Your task to perform on an android device: all mails in gmail Image 0: 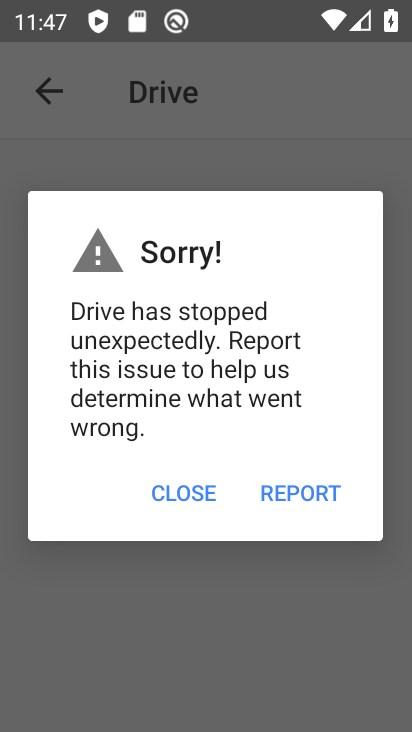
Step 0: press home button
Your task to perform on an android device: all mails in gmail Image 1: 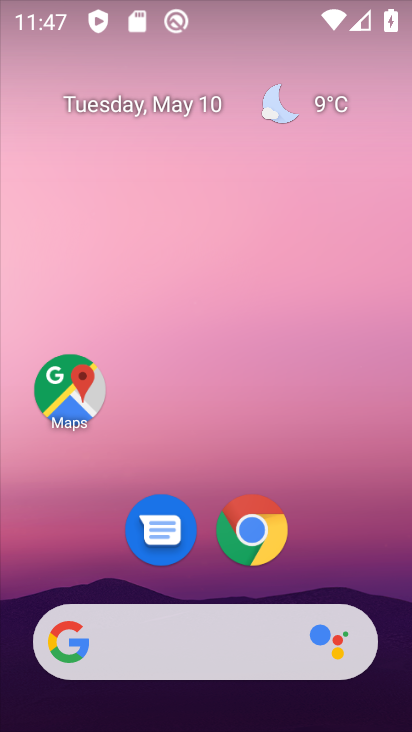
Step 1: drag from (360, 555) to (194, 101)
Your task to perform on an android device: all mails in gmail Image 2: 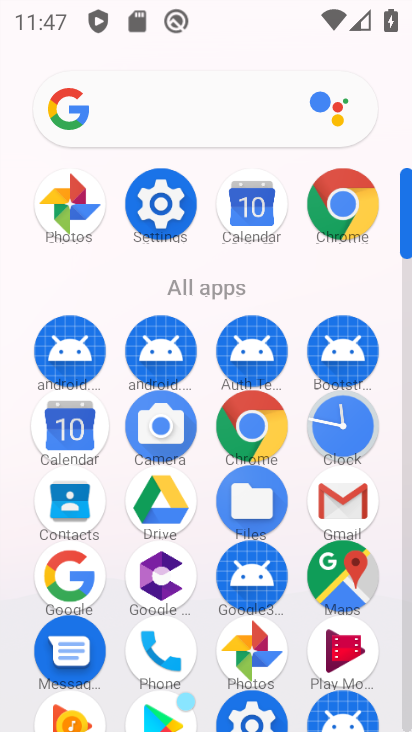
Step 2: click (337, 500)
Your task to perform on an android device: all mails in gmail Image 3: 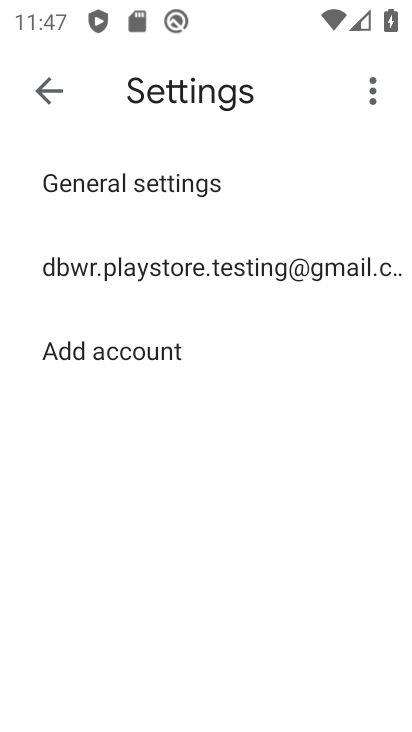
Step 3: click (43, 95)
Your task to perform on an android device: all mails in gmail Image 4: 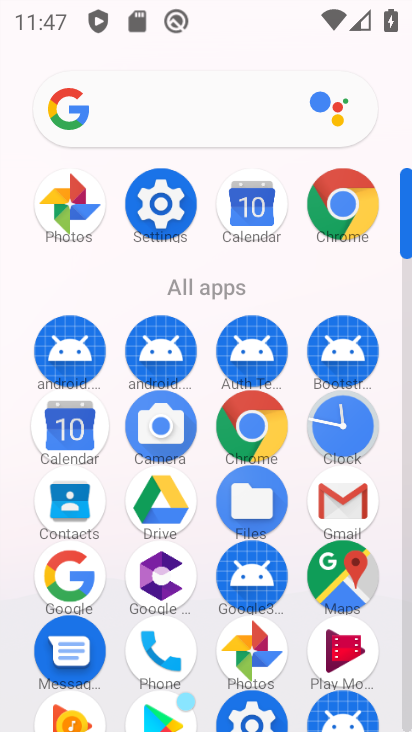
Step 4: click (338, 501)
Your task to perform on an android device: all mails in gmail Image 5: 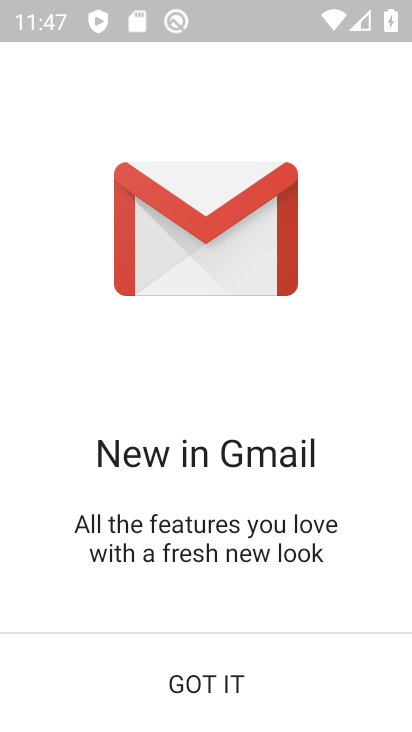
Step 5: click (276, 646)
Your task to perform on an android device: all mails in gmail Image 6: 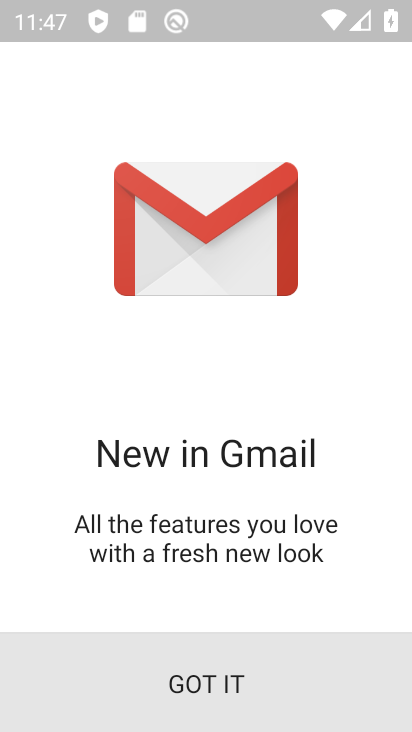
Step 6: click (278, 646)
Your task to perform on an android device: all mails in gmail Image 7: 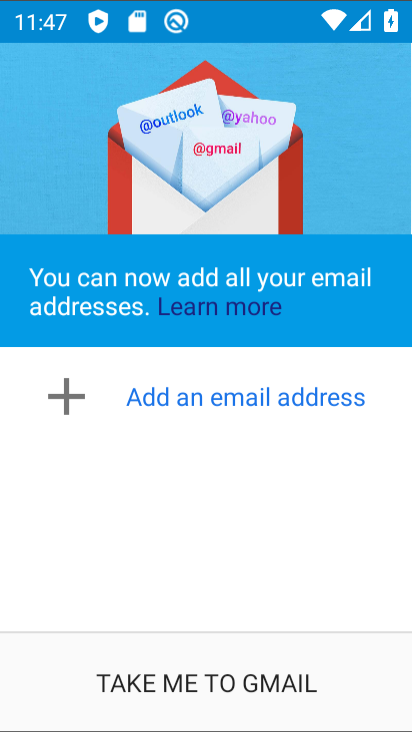
Step 7: click (278, 646)
Your task to perform on an android device: all mails in gmail Image 8: 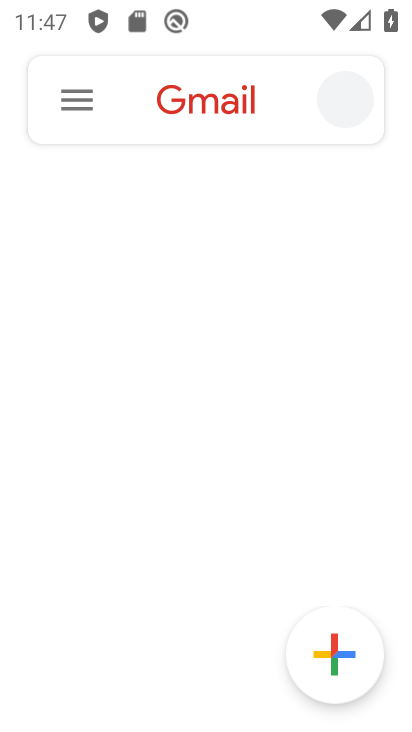
Step 8: click (278, 646)
Your task to perform on an android device: all mails in gmail Image 9: 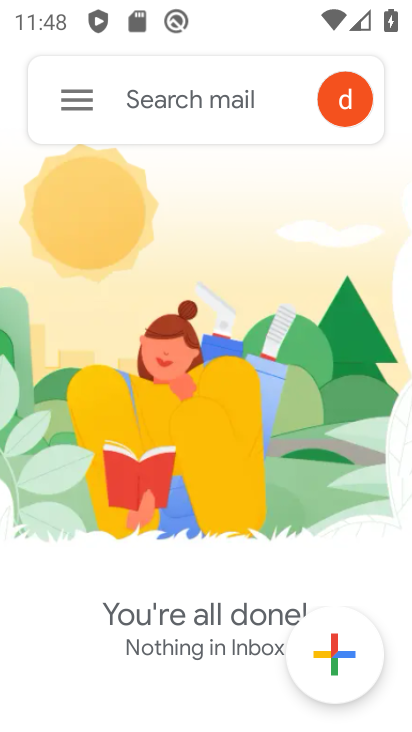
Step 9: click (88, 92)
Your task to perform on an android device: all mails in gmail Image 10: 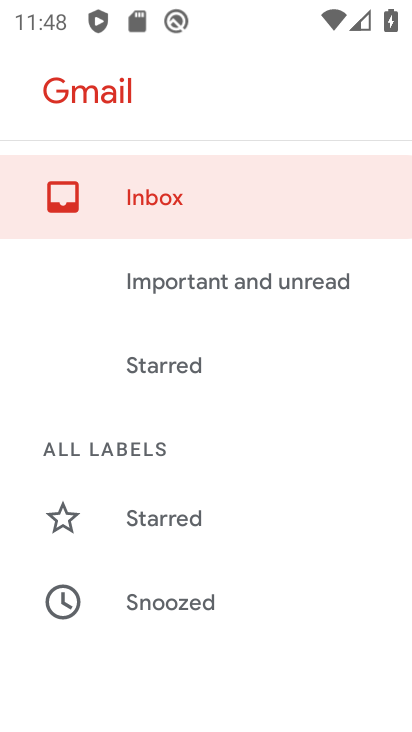
Step 10: drag from (174, 513) to (109, 83)
Your task to perform on an android device: all mails in gmail Image 11: 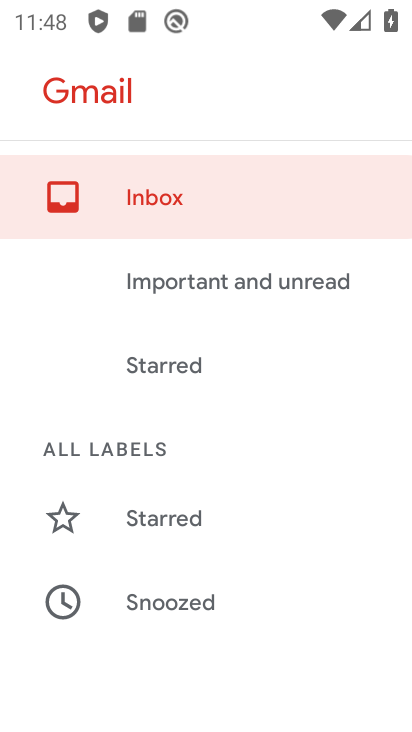
Step 11: drag from (324, 502) to (211, 121)
Your task to perform on an android device: all mails in gmail Image 12: 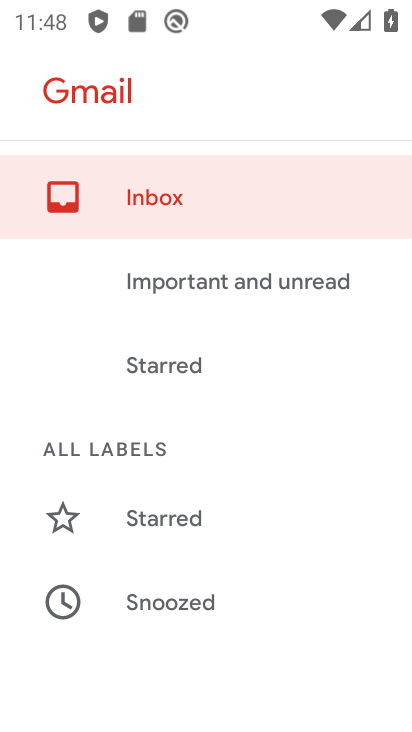
Step 12: drag from (209, 615) to (151, 138)
Your task to perform on an android device: all mails in gmail Image 13: 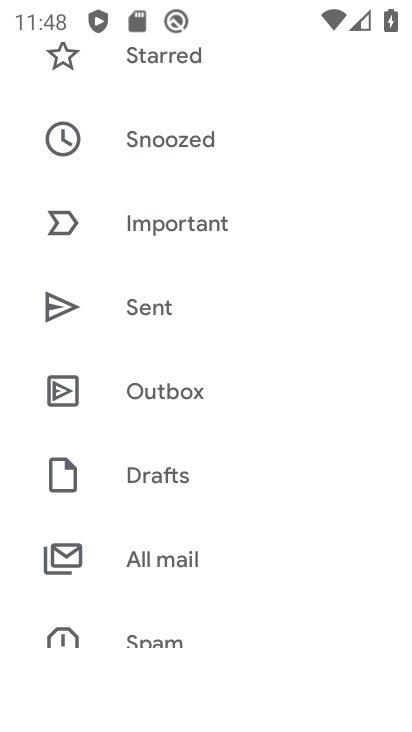
Step 13: click (83, 569)
Your task to perform on an android device: all mails in gmail Image 14: 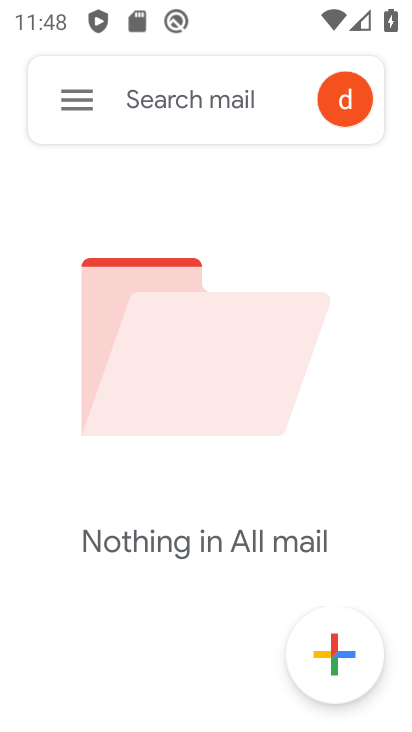
Step 14: task complete